Your task to perform on an android device: show emergency info Image 0: 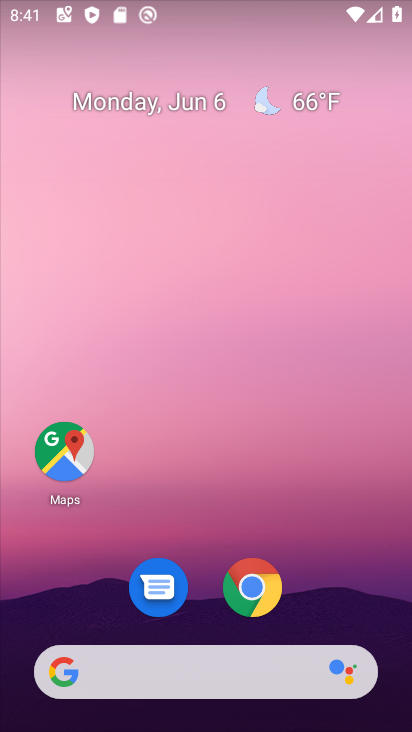
Step 0: drag from (203, 666) to (222, 7)
Your task to perform on an android device: show emergency info Image 1: 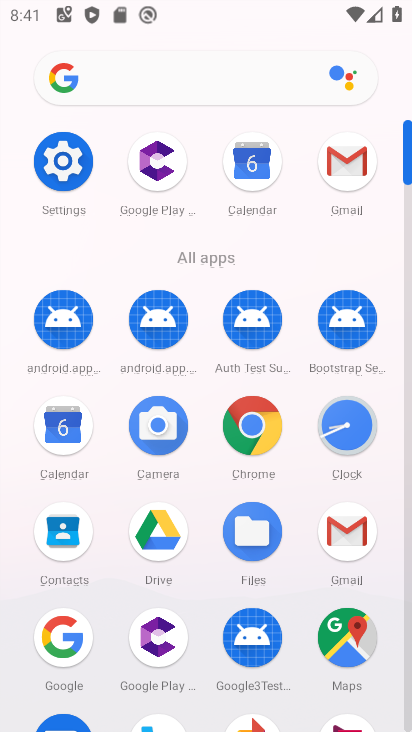
Step 1: click (75, 169)
Your task to perform on an android device: show emergency info Image 2: 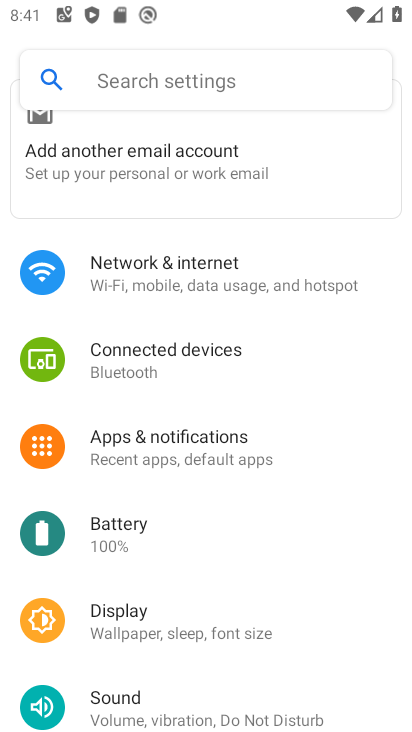
Step 2: drag from (194, 618) to (92, 55)
Your task to perform on an android device: show emergency info Image 3: 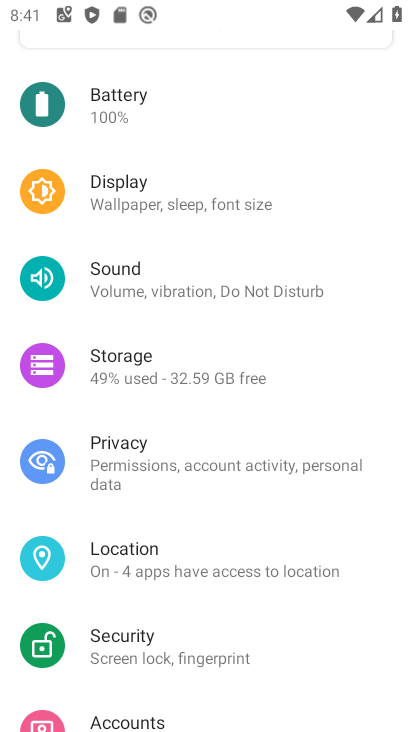
Step 3: drag from (194, 608) to (143, 43)
Your task to perform on an android device: show emergency info Image 4: 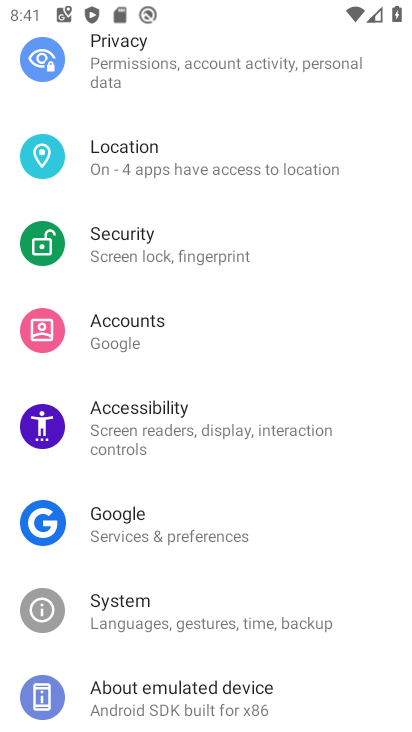
Step 4: click (165, 695)
Your task to perform on an android device: show emergency info Image 5: 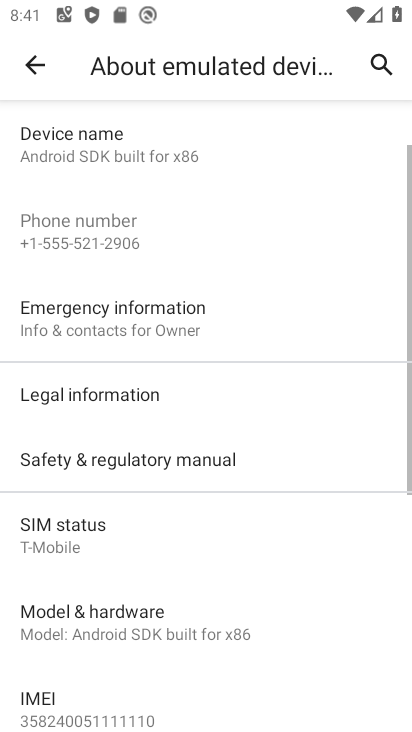
Step 5: click (111, 322)
Your task to perform on an android device: show emergency info Image 6: 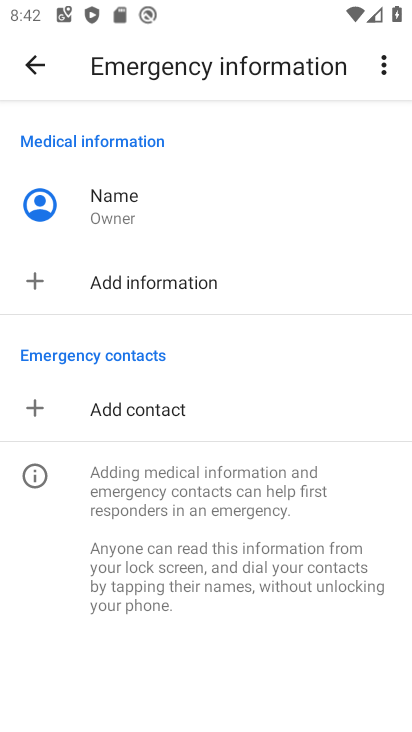
Step 6: task complete